Your task to perform on an android device: Search for Italian restaurants on Maps Image 0: 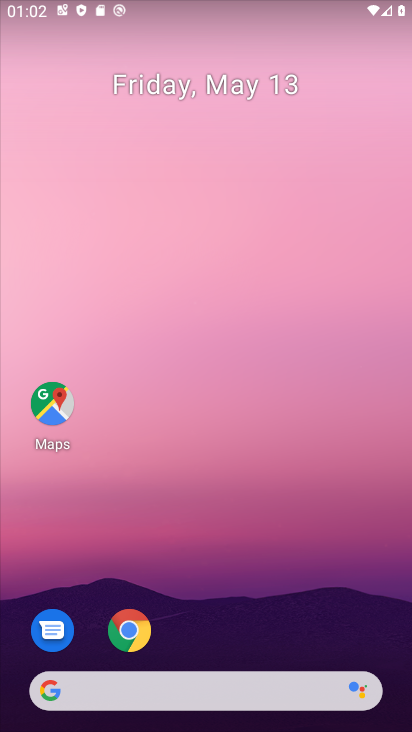
Step 0: drag from (195, 708) to (246, 253)
Your task to perform on an android device: Search for Italian restaurants on Maps Image 1: 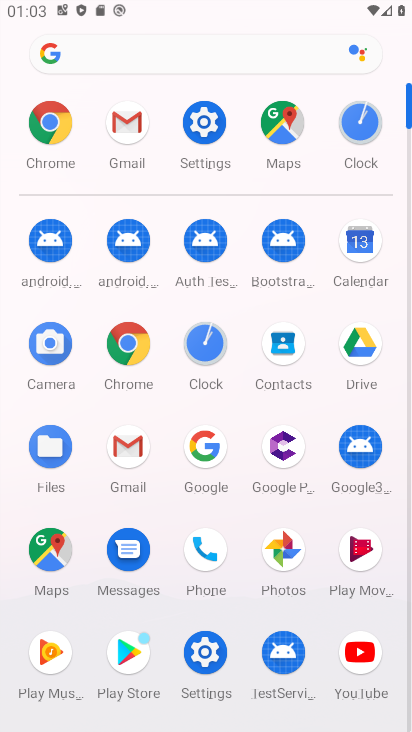
Step 1: click (264, 134)
Your task to perform on an android device: Search for Italian restaurants on Maps Image 2: 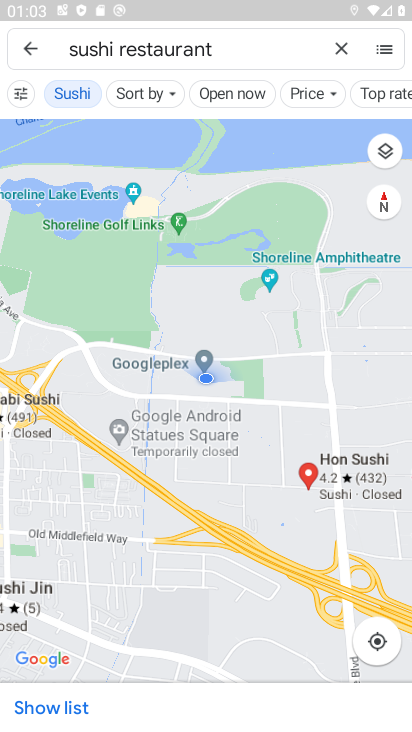
Step 2: click (345, 45)
Your task to perform on an android device: Search for Italian restaurants on Maps Image 3: 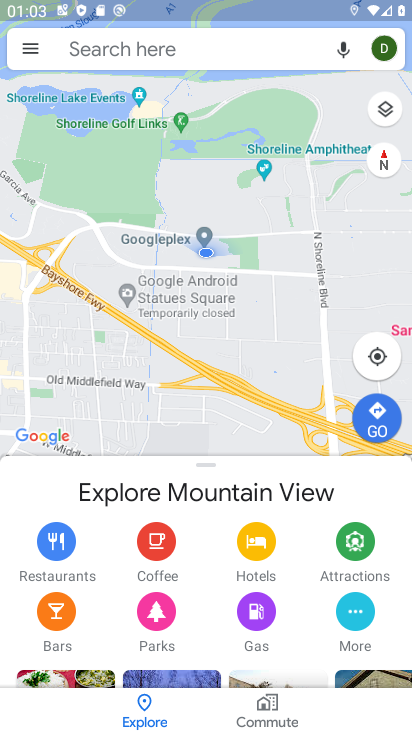
Step 3: click (184, 47)
Your task to perform on an android device: Search for Italian restaurants on Maps Image 4: 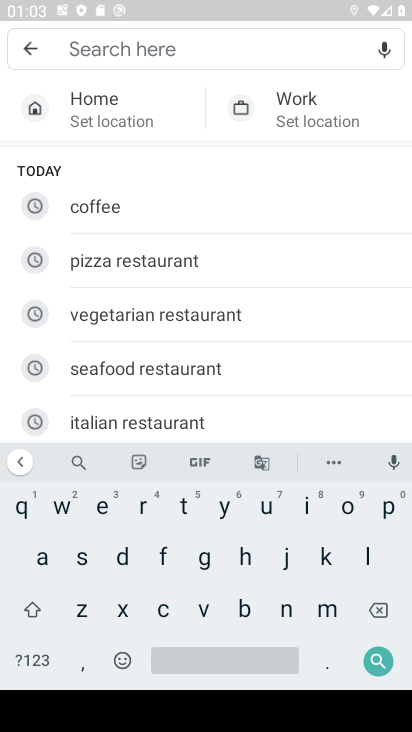
Step 4: click (168, 421)
Your task to perform on an android device: Search for Italian restaurants on Maps Image 5: 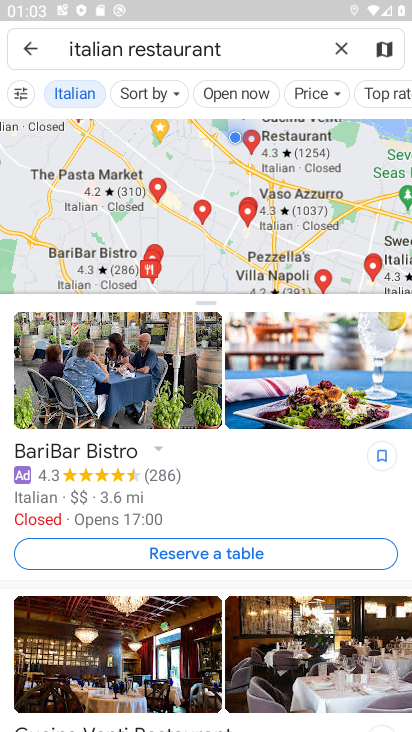
Step 5: task complete